Your task to perform on an android device: star an email in the gmail app Image 0: 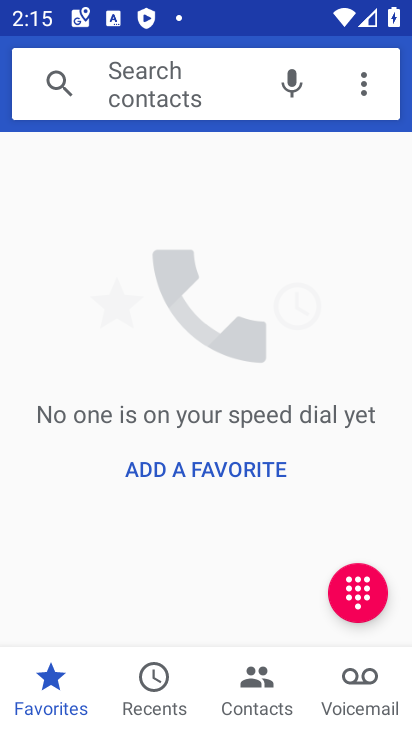
Step 0: press home button
Your task to perform on an android device: star an email in the gmail app Image 1: 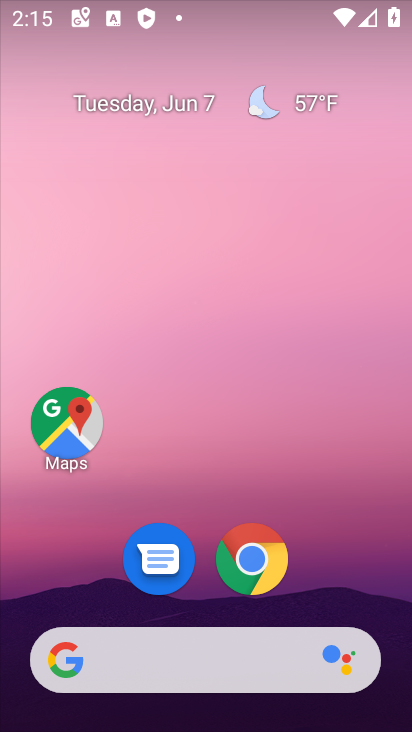
Step 1: drag from (63, 486) to (171, 143)
Your task to perform on an android device: star an email in the gmail app Image 2: 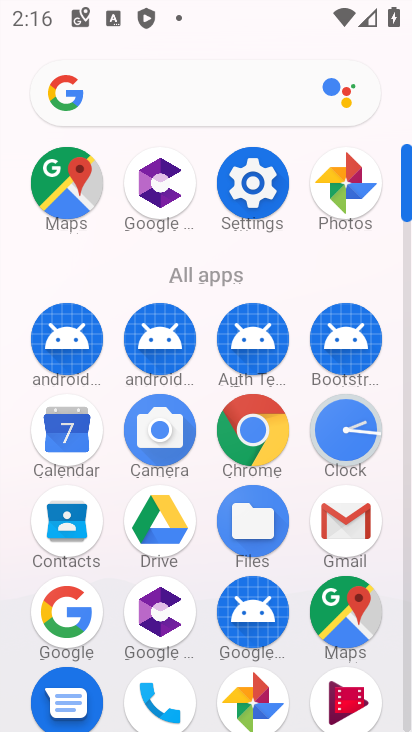
Step 2: click (339, 517)
Your task to perform on an android device: star an email in the gmail app Image 3: 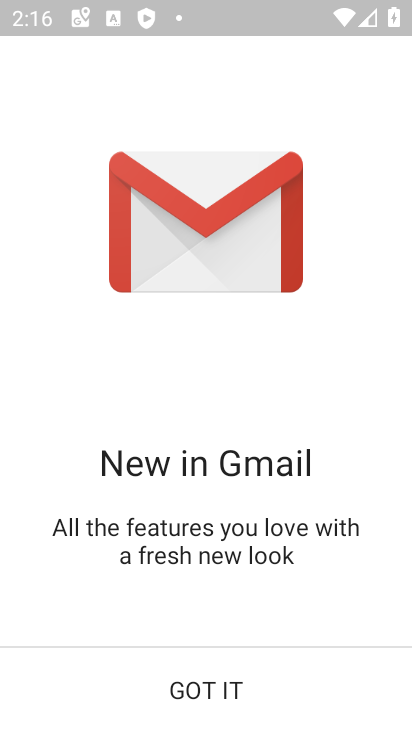
Step 3: click (239, 692)
Your task to perform on an android device: star an email in the gmail app Image 4: 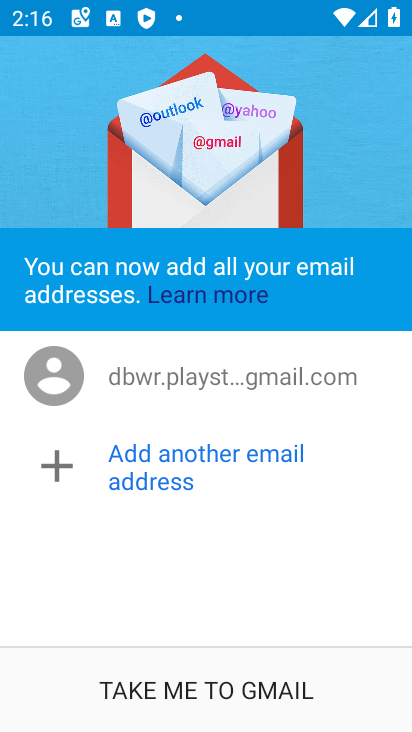
Step 4: click (217, 692)
Your task to perform on an android device: star an email in the gmail app Image 5: 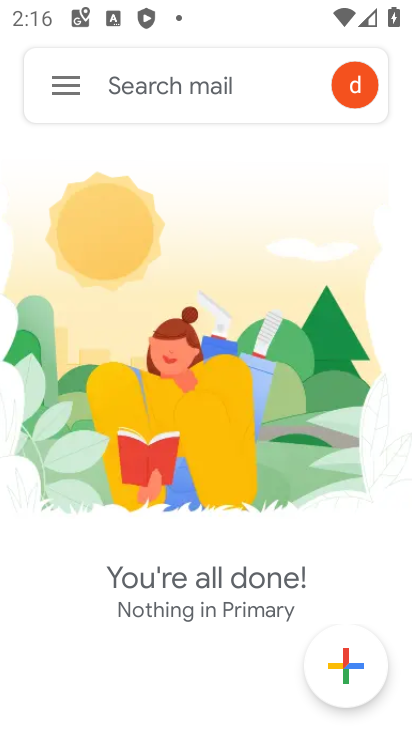
Step 5: click (74, 91)
Your task to perform on an android device: star an email in the gmail app Image 6: 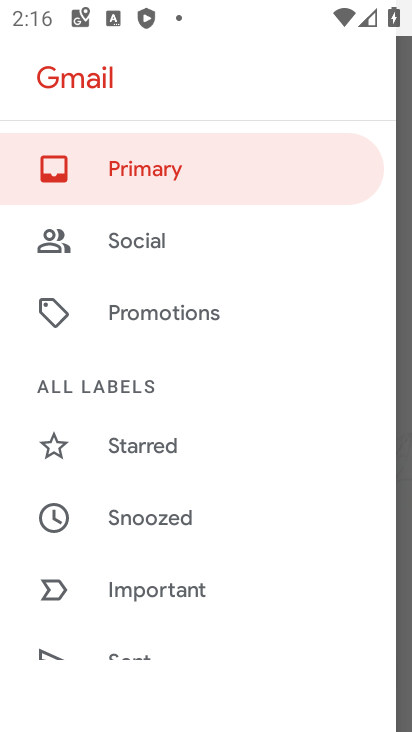
Step 6: drag from (35, 623) to (217, 211)
Your task to perform on an android device: star an email in the gmail app Image 7: 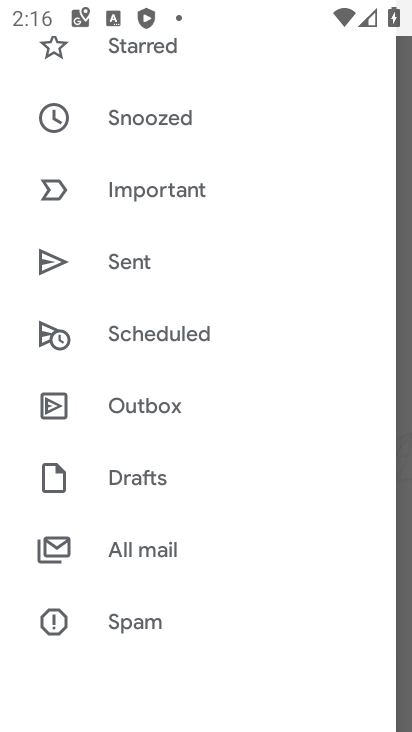
Step 7: click (92, 529)
Your task to perform on an android device: star an email in the gmail app Image 8: 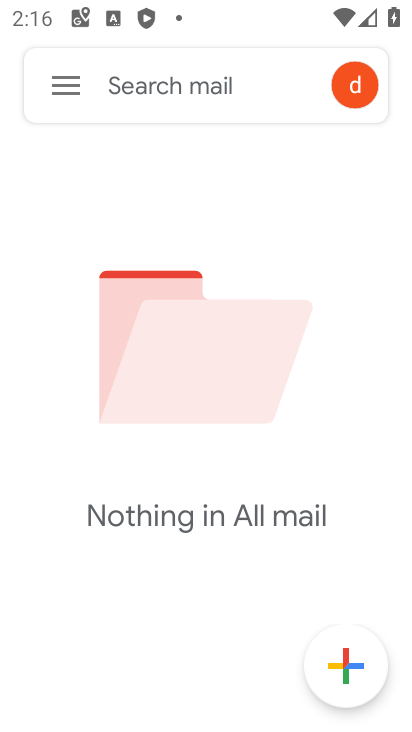
Step 8: task complete